Your task to perform on an android device: Open my contact list Image 0: 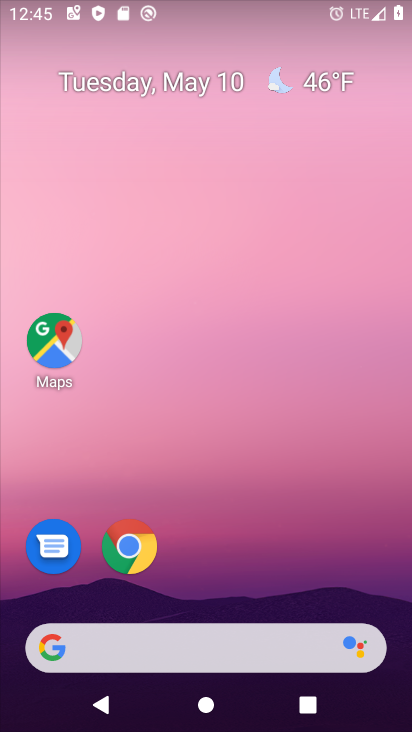
Step 0: drag from (351, 584) to (337, 1)
Your task to perform on an android device: Open my contact list Image 1: 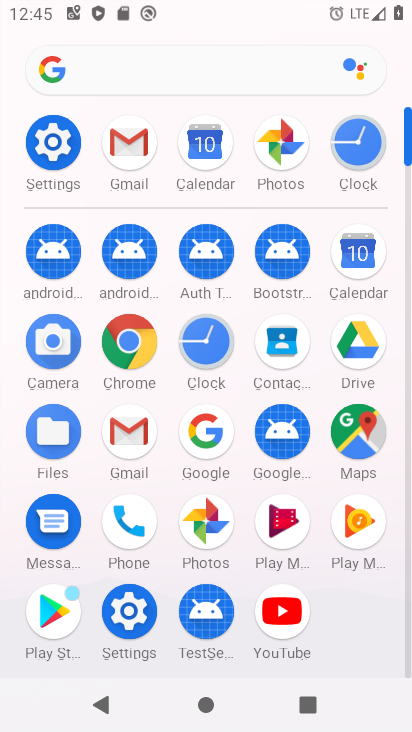
Step 1: click (293, 343)
Your task to perform on an android device: Open my contact list Image 2: 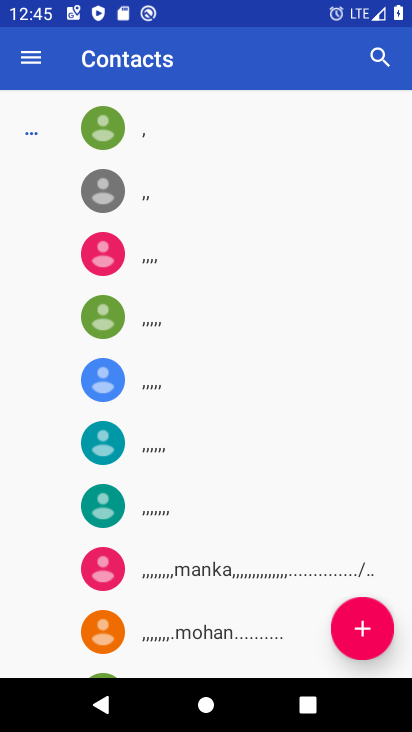
Step 2: task complete